Your task to perform on an android device: Open the stopwatch Image 0: 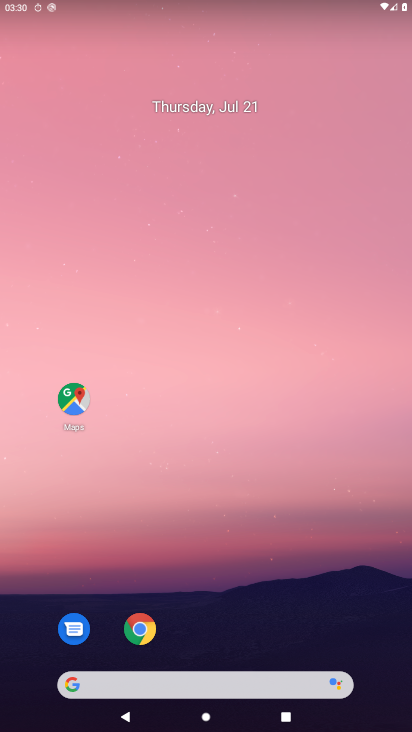
Step 0: drag from (23, 641) to (187, 296)
Your task to perform on an android device: Open the stopwatch Image 1: 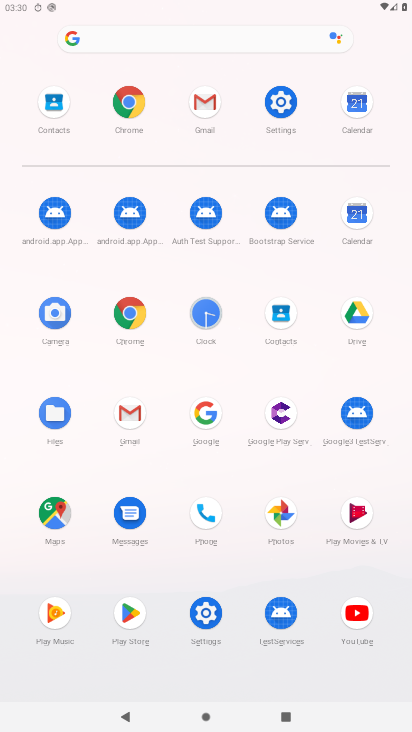
Step 1: click (195, 321)
Your task to perform on an android device: Open the stopwatch Image 2: 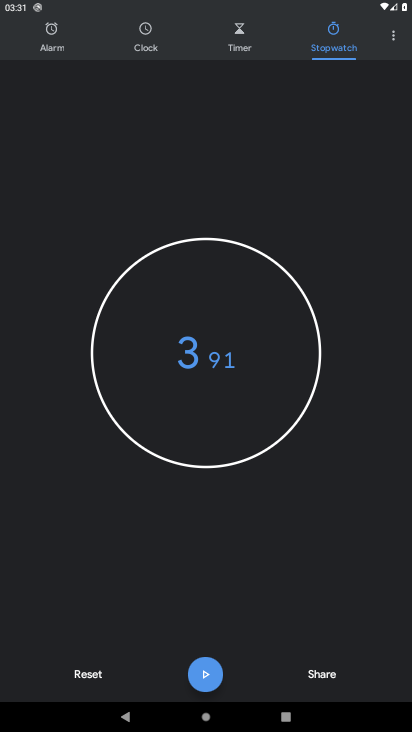
Step 2: click (216, 345)
Your task to perform on an android device: Open the stopwatch Image 3: 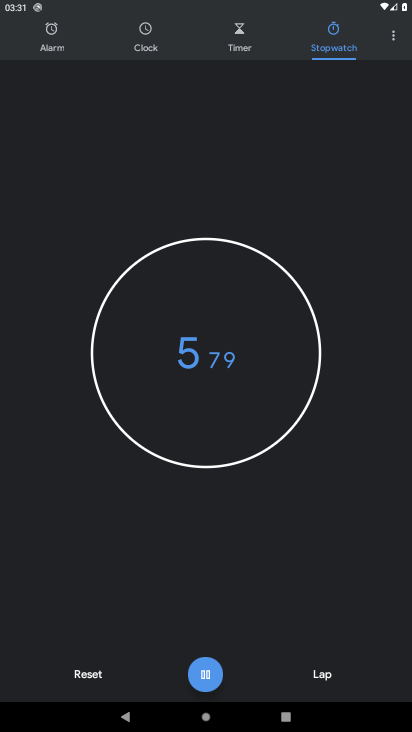
Step 3: click (204, 387)
Your task to perform on an android device: Open the stopwatch Image 4: 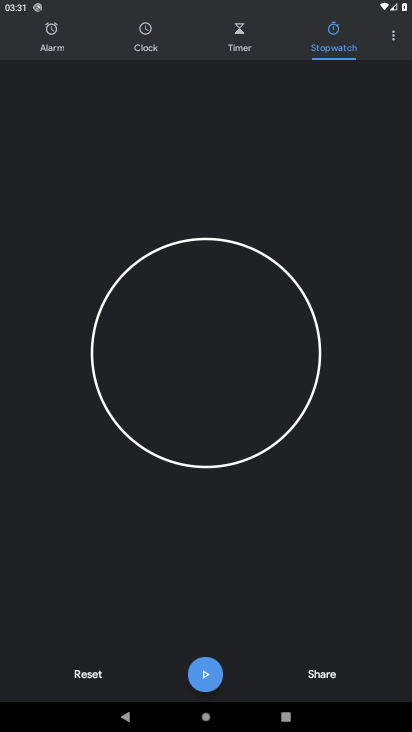
Step 4: task complete